Your task to perform on an android device: toggle notification dots Image 0: 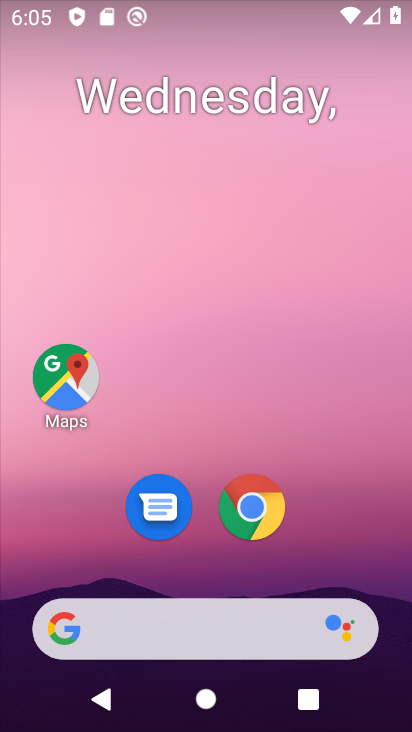
Step 0: drag from (331, 621) to (293, 19)
Your task to perform on an android device: toggle notification dots Image 1: 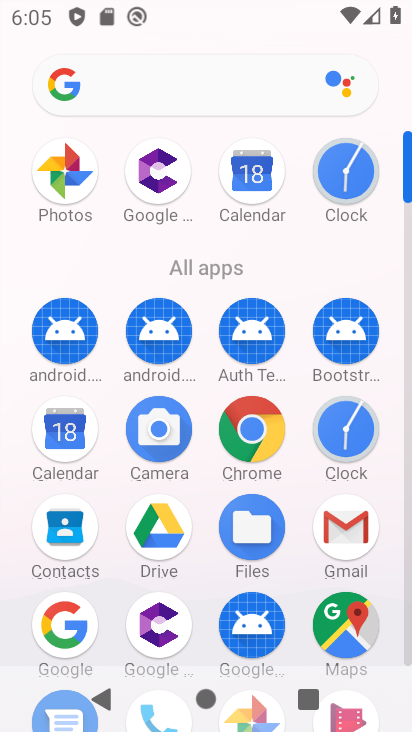
Step 1: drag from (290, 545) to (283, 57)
Your task to perform on an android device: toggle notification dots Image 2: 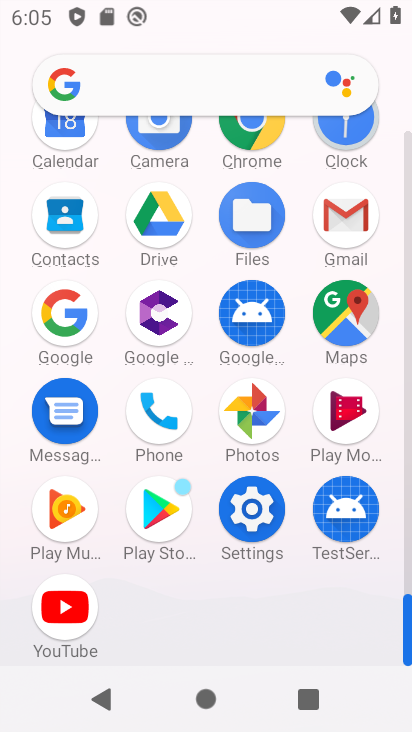
Step 2: click (257, 531)
Your task to perform on an android device: toggle notification dots Image 3: 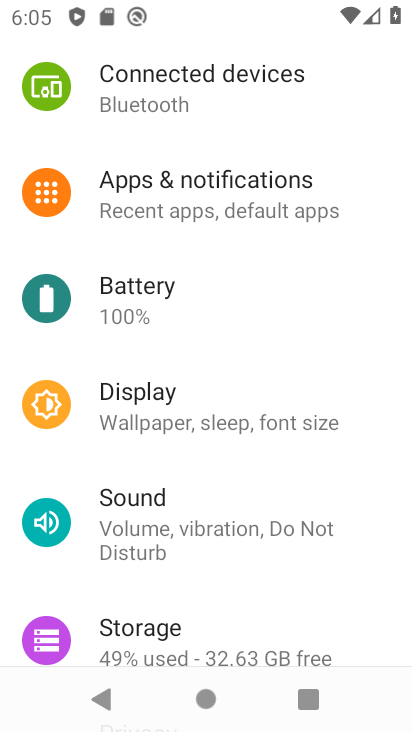
Step 3: click (201, 192)
Your task to perform on an android device: toggle notification dots Image 4: 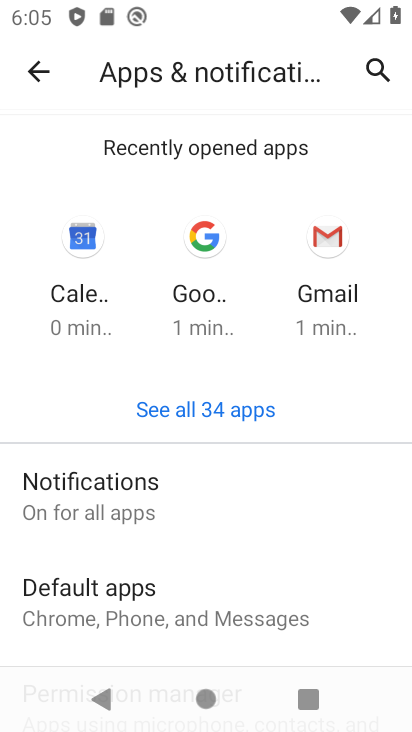
Step 4: drag from (243, 616) to (229, 56)
Your task to perform on an android device: toggle notification dots Image 5: 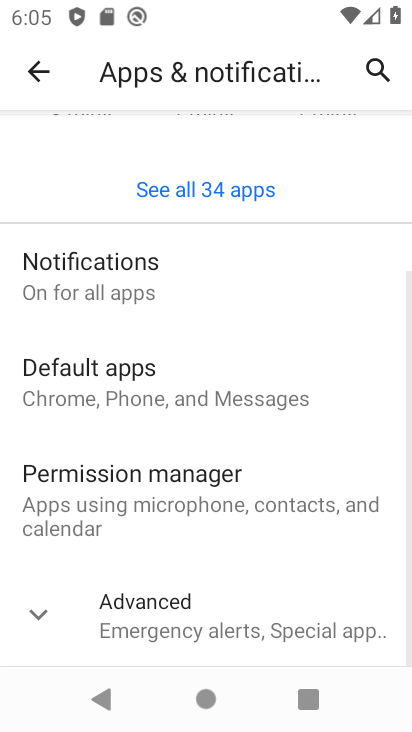
Step 5: click (207, 639)
Your task to perform on an android device: toggle notification dots Image 6: 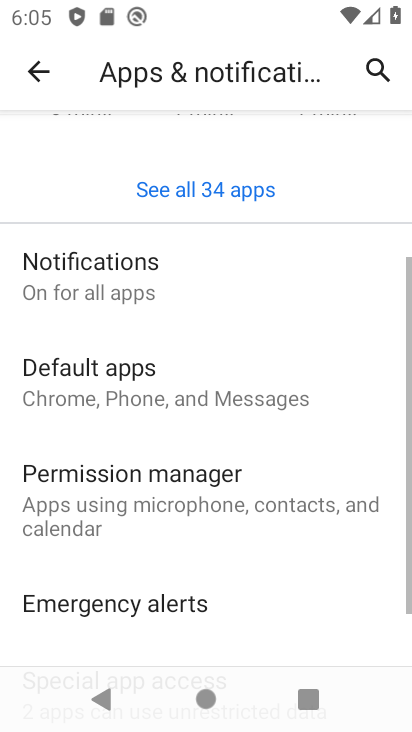
Step 6: drag from (207, 639) to (178, 147)
Your task to perform on an android device: toggle notification dots Image 7: 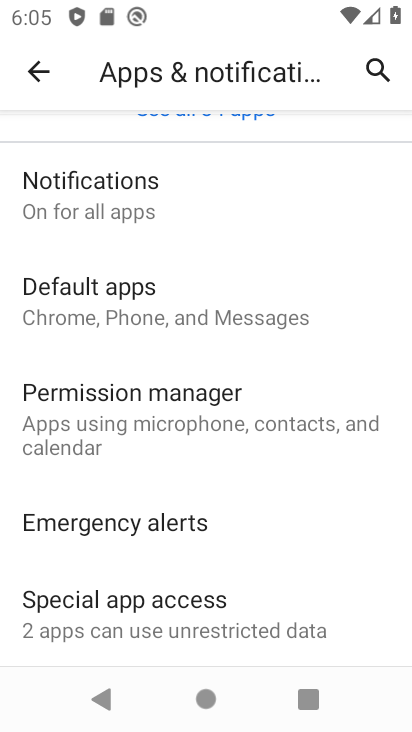
Step 7: click (122, 204)
Your task to perform on an android device: toggle notification dots Image 8: 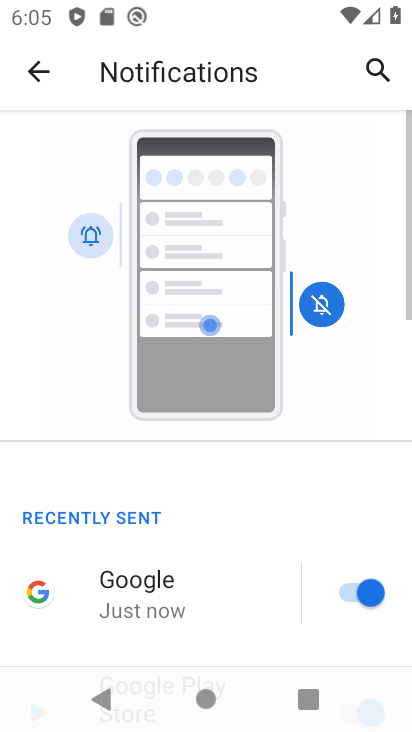
Step 8: drag from (202, 640) to (242, 56)
Your task to perform on an android device: toggle notification dots Image 9: 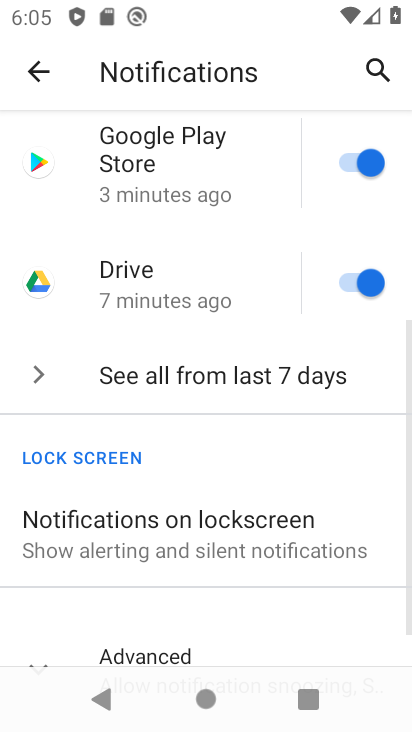
Step 9: drag from (241, 650) to (259, 259)
Your task to perform on an android device: toggle notification dots Image 10: 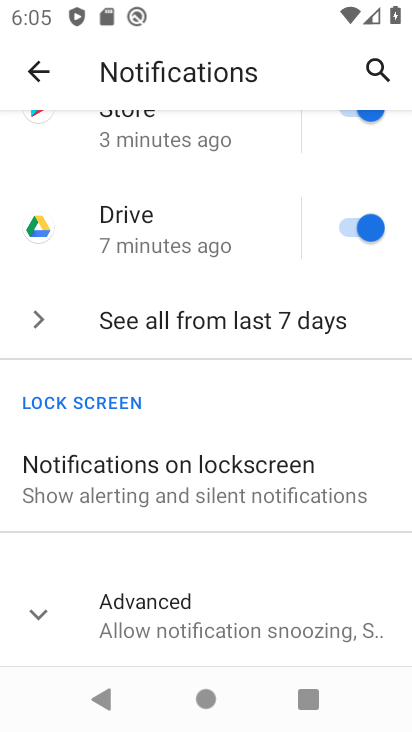
Step 10: click (187, 629)
Your task to perform on an android device: toggle notification dots Image 11: 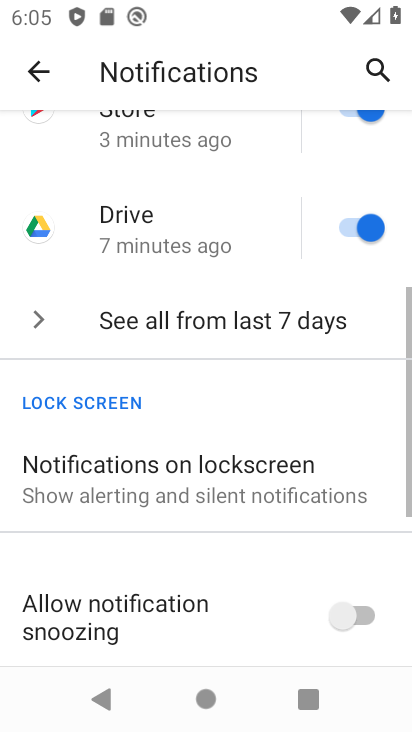
Step 11: drag from (255, 616) to (270, 157)
Your task to perform on an android device: toggle notification dots Image 12: 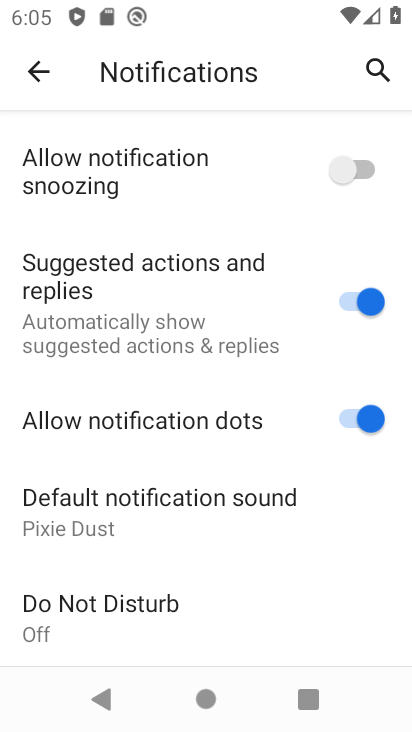
Step 12: click (352, 420)
Your task to perform on an android device: toggle notification dots Image 13: 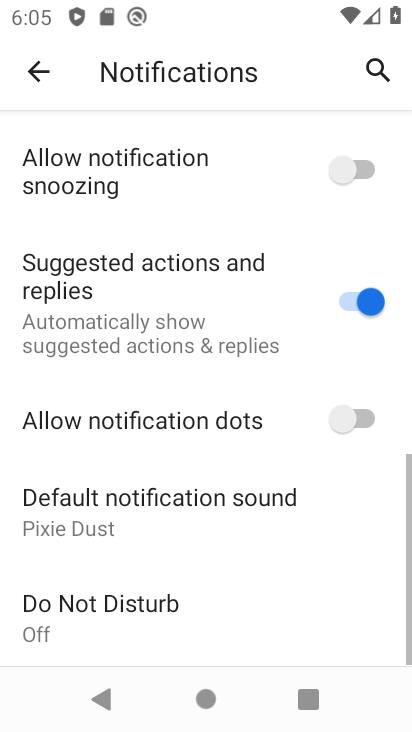
Step 13: task complete